Your task to perform on an android device: allow cookies in the chrome app Image 0: 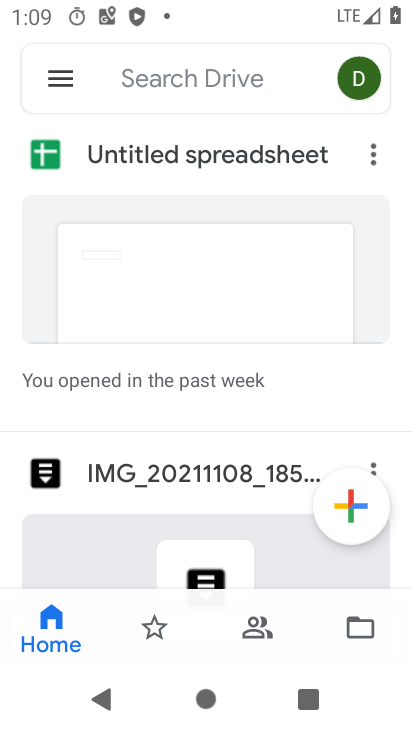
Step 0: press home button
Your task to perform on an android device: allow cookies in the chrome app Image 1: 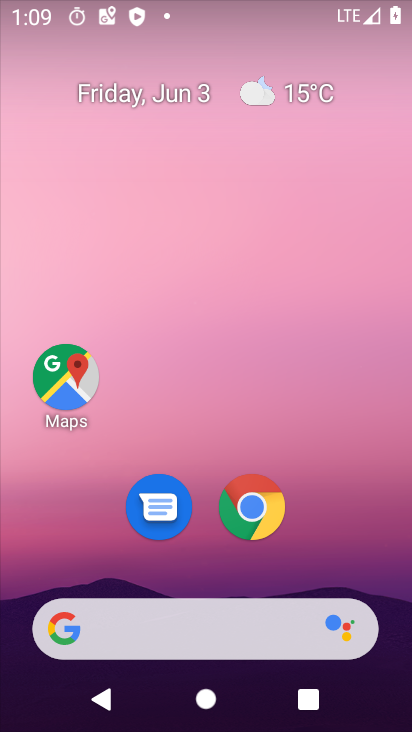
Step 1: drag from (365, 580) to (391, 9)
Your task to perform on an android device: allow cookies in the chrome app Image 2: 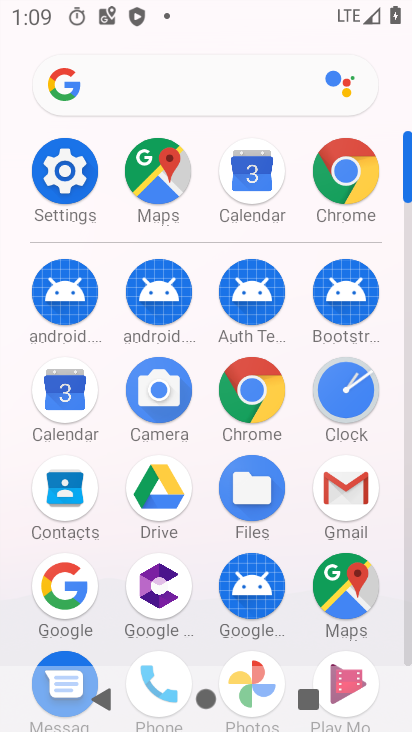
Step 2: click (365, 166)
Your task to perform on an android device: allow cookies in the chrome app Image 3: 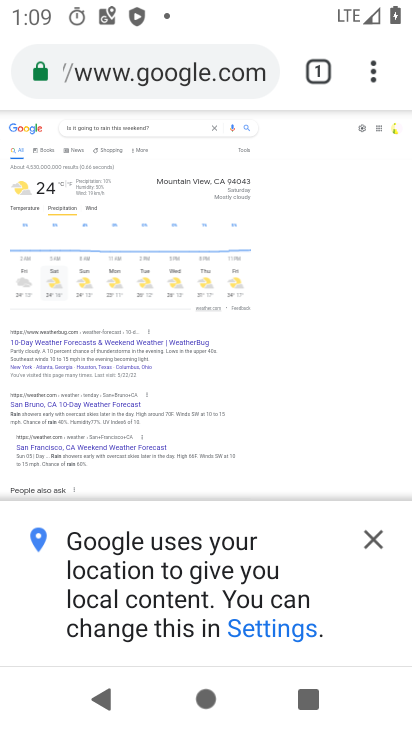
Step 3: press back button
Your task to perform on an android device: allow cookies in the chrome app Image 4: 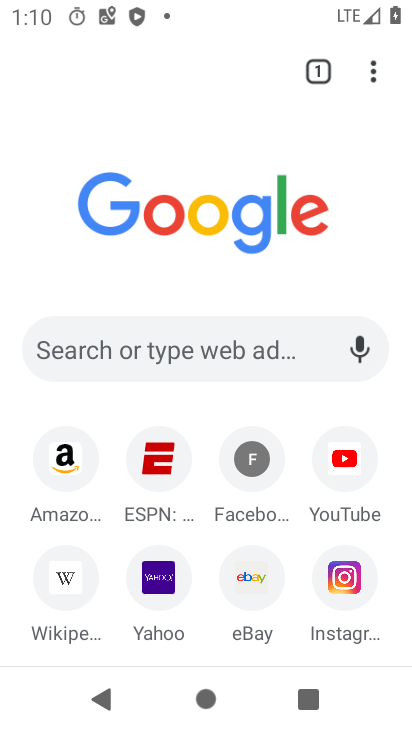
Step 4: click (373, 63)
Your task to perform on an android device: allow cookies in the chrome app Image 5: 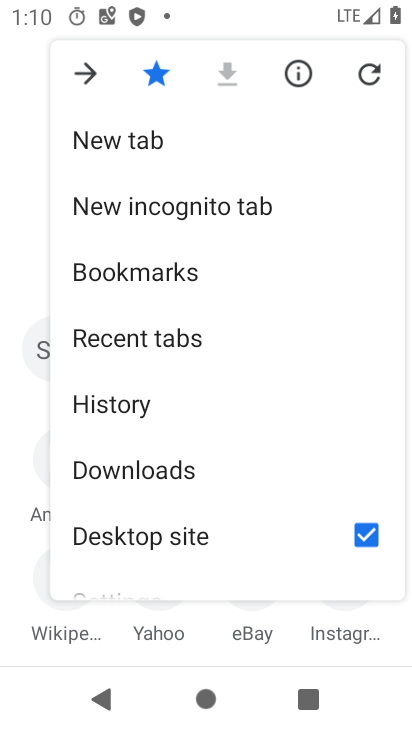
Step 5: click (178, 410)
Your task to perform on an android device: allow cookies in the chrome app Image 6: 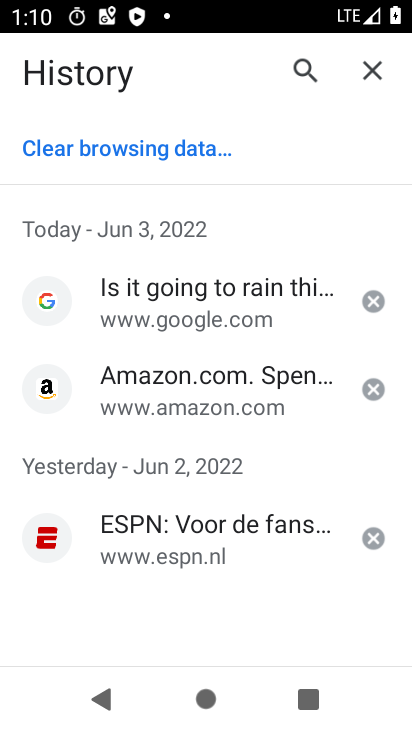
Step 6: click (128, 158)
Your task to perform on an android device: allow cookies in the chrome app Image 7: 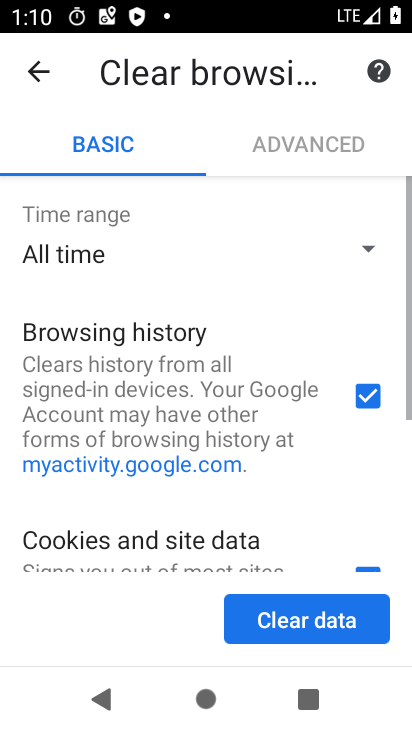
Step 7: task complete